Your task to perform on an android device: Empty the shopping cart on amazon.com. Add "jbl charge 4" to the cart on amazon.com, then select checkout. Image 0: 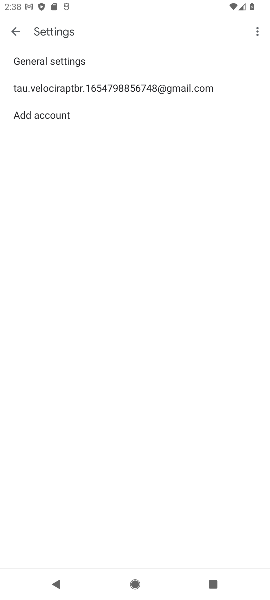
Step 0: press home button
Your task to perform on an android device: Empty the shopping cart on amazon.com. Add "jbl charge 4" to the cart on amazon.com, then select checkout. Image 1: 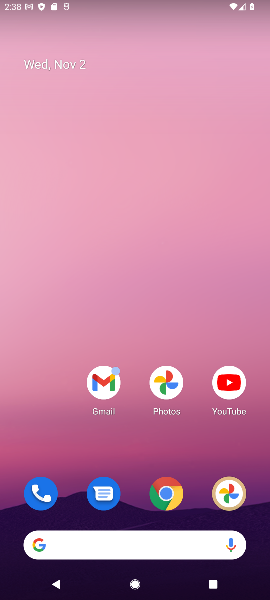
Step 1: click (176, 487)
Your task to perform on an android device: Empty the shopping cart on amazon.com. Add "jbl charge 4" to the cart on amazon.com, then select checkout. Image 2: 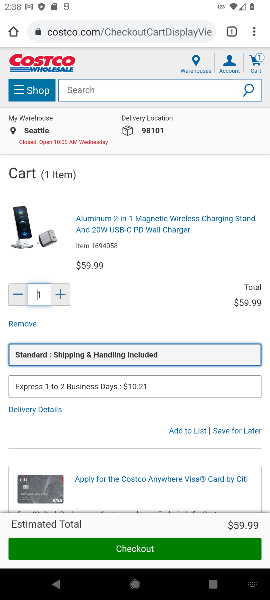
Step 2: click (157, 26)
Your task to perform on an android device: Empty the shopping cart on amazon.com. Add "jbl charge 4" to the cart on amazon.com, then select checkout. Image 3: 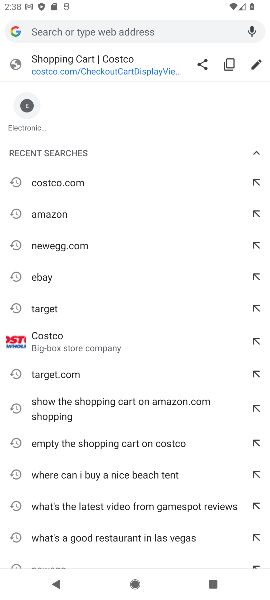
Step 3: type "amazon.com"
Your task to perform on an android device: Empty the shopping cart on amazon.com. Add "jbl charge 4" to the cart on amazon.com, then select checkout. Image 4: 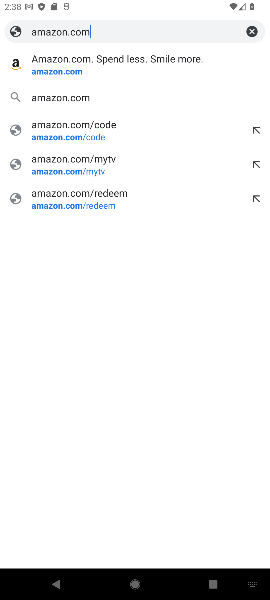
Step 4: click (70, 99)
Your task to perform on an android device: Empty the shopping cart on amazon.com. Add "jbl charge 4" to the cart on amazon.com, then select checkout. Image 5: 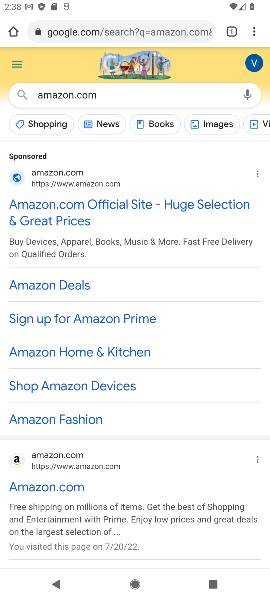
Step 5: click (65, 453)
Your task to perform on an android device: Empty the shopping cart on amazon.com. Add "jbl charge 4" to the cart on amazon.com, then select checkout. Image 6: 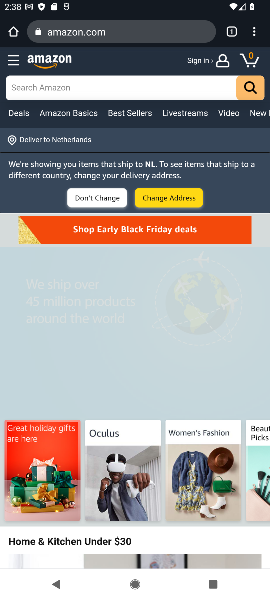
Step 6: click (249, 57)
Your task to perform on an android device: Empty the shopping cart on amazon.com. Add "jbl charge 4" to the cart on amazon.com, then select checkout. Image 7: 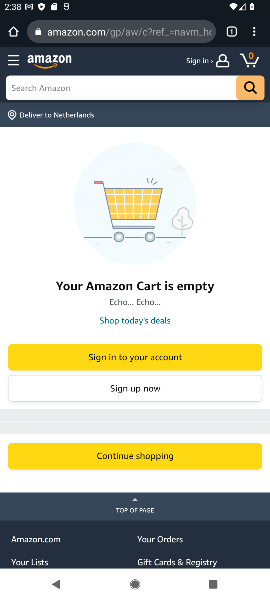
Step 7: click (151, 90)
Your task to perform on an android device: Empty the shopping cart on amazon.com. Add "jbl charge 4" to the cart on amazon.com, then select checkout. Image 8: 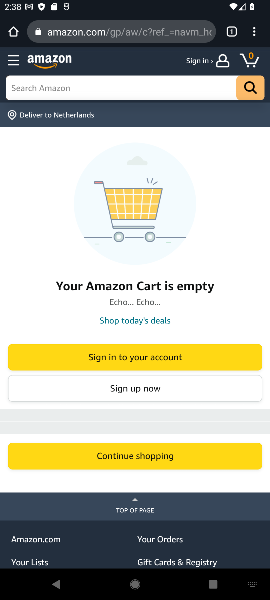
Step 8: type "jbl charge 4"
Your task to perform on an android device: Empty the shopping cart on amazon.com. Add "jbl charge 4" to the cart on amazon.com, then select checkout. Image 9: 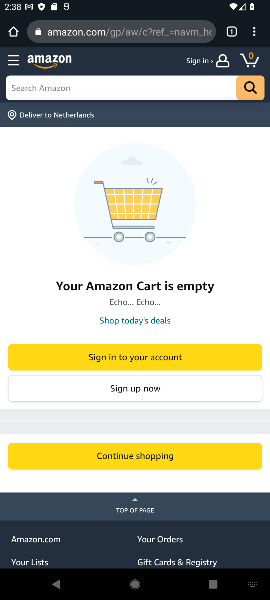
Step 9: press enter
Your task to perform on an android device: Empty the shopping cart on amazon.com. Add "jbl charge 4" to the cart on amazon.com, then select checkout. Image 10: 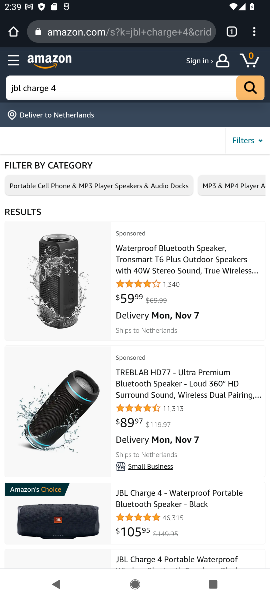
Step 10: click (57, 509)
Your task to perform on an android device: Empty the shopping cart on amazon.com. Add "jbl charge 4" to the cart on amazon.com, then select checkout. Image 11: 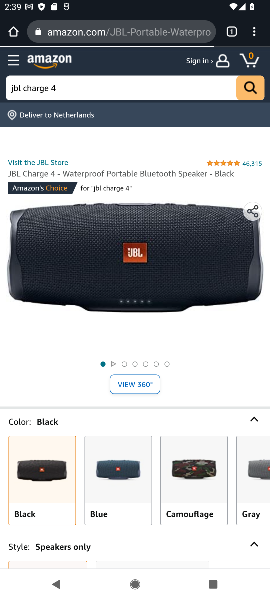
Step 11: drag from (166, 505) to (180, 225)
Your task to perform on an android device: Empty the shopping cart on amazon.com. Add "jbl charge 4" to the cart on amazon.com, then select checkout. Image 12: 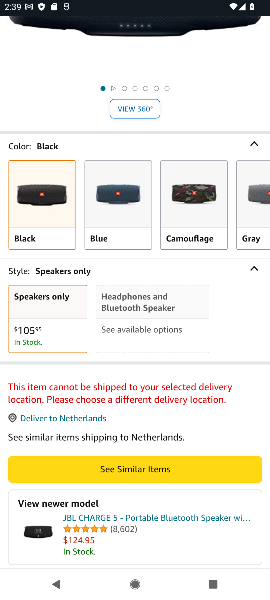
Step 12: drag from (156, 490) to (219, 153)
Your task to perform on an android device: Empty the shopping cart on amazon.com. Add "jbl charge 4" to the cart on amazon.com, then select checkout. Image 13: 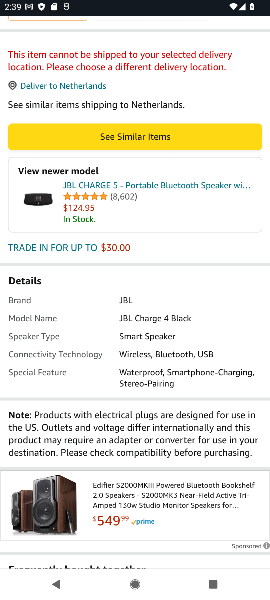
Step 13: drag from (223, 373) to (235, 532)
Your task to perform on an android device: Empty the shopping cart on amazon.com. Add "jbl charge 4" to the cart on amazon.com, then select checkout. Image 14: 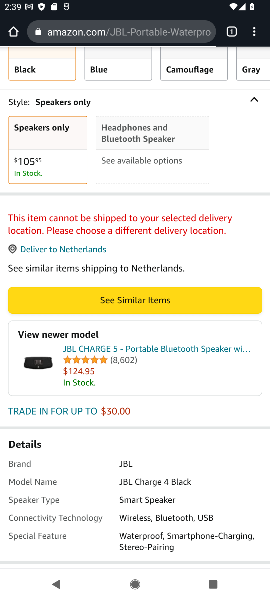
Step 14: press back button
Your task to perform on an android device: Empty the shopping cart on amazon.com. Add "jbl charge 4" to the cart on amazon.com, then select checkout. Image 15: 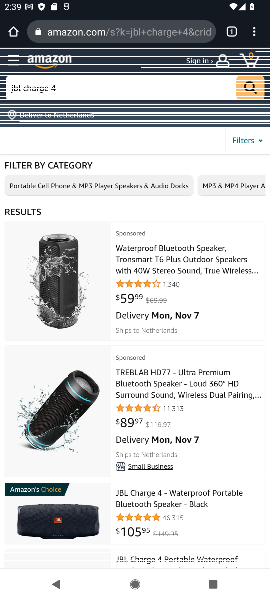
Step 15: drag from (181, 463) to (187, 229)
Your task to perform on an android device: Empty the shopping cart on amazon.com. Add "jbl charge 4" to the cart on amazon.com, then select checkout. Image 16: 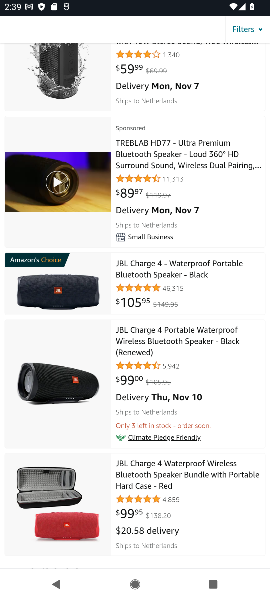
Step 16: click (72, 346)
Your task to perform on an android device: Empty the shopping cart on amazon.com. Add "jbl charge 4" to the cart on amazon.com, then select checkout. Image 17: 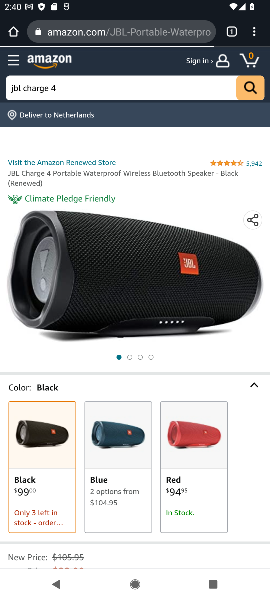
Step 17: drag from (149, 532) to (162, 208)
Your task to perform on an android device: Empty the shopping cart on amazon.com. Add "jbl charge 4" to the cart on amazon.com, then select checkout. Image 18: 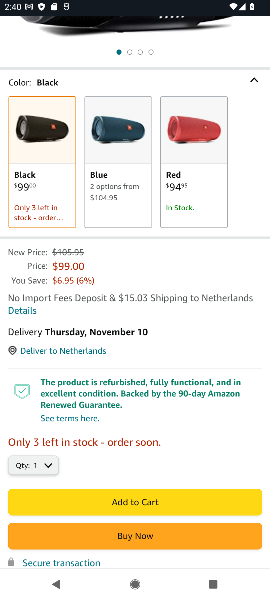
Step 18: click (164, 502)
Your task to perform on an android device: Empty the shopping cart on amazon.com. Add "jbl charge 4" to the cart on amazon.com, then select checkout. Image 19: 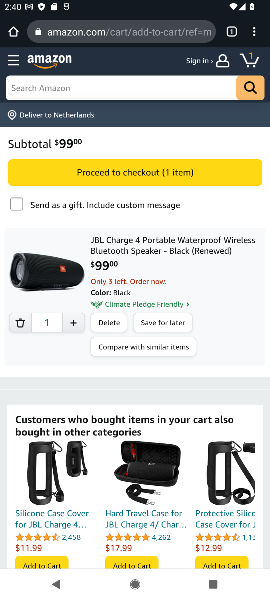
Step 19: click (132, 170)
Your task to perform on an android device: Empty the shopping cart on amazon.com. Add "jbl charge 4" to the cart on amazon.com, then select checkout. Image 20: 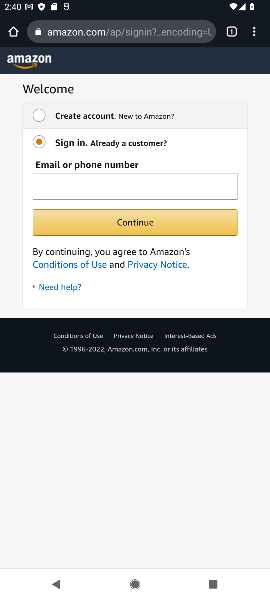
Step 20: task complete